Your task to perform on an android device: delete the emails in spam in the gmail app Image 0: 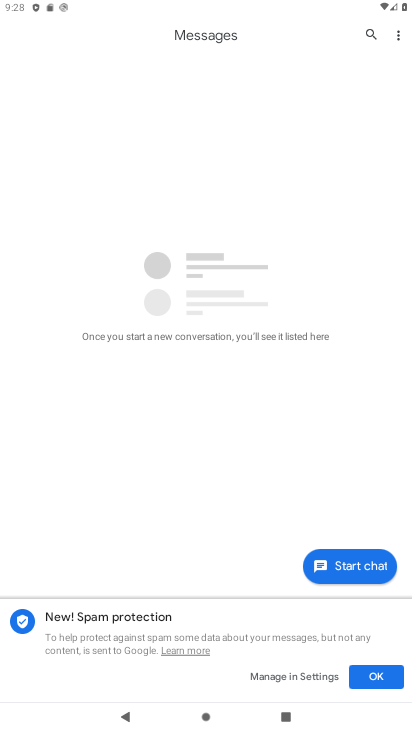
Step 0: press home button
Your task to perform on an android device: delete the emails in spam in the gmail app Image 1: 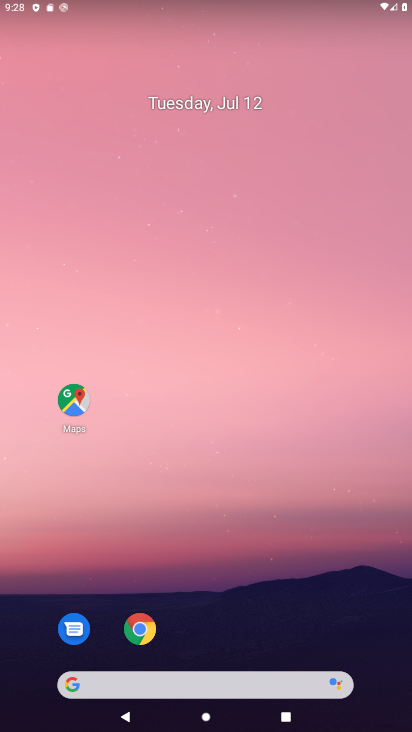
Step 1: drag from (237, 688) to (381, 93)
Your task to perform on an android device: delete the emails in spam in the gmail app Image 2: 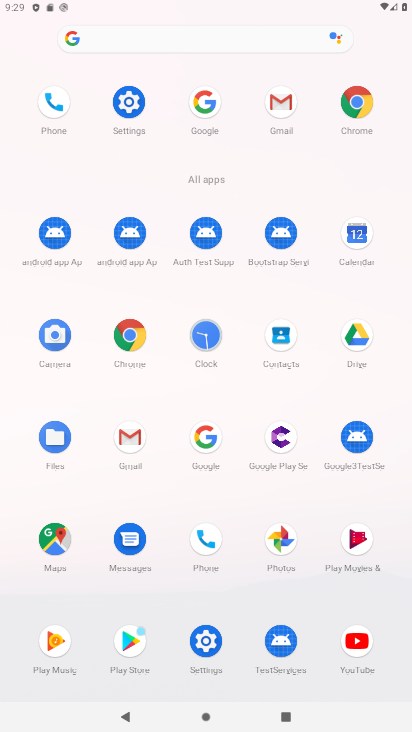
Step 2: click (127, 436)
Your task to perform on an android device: delete the emails in spam in the gmail app Image 3: 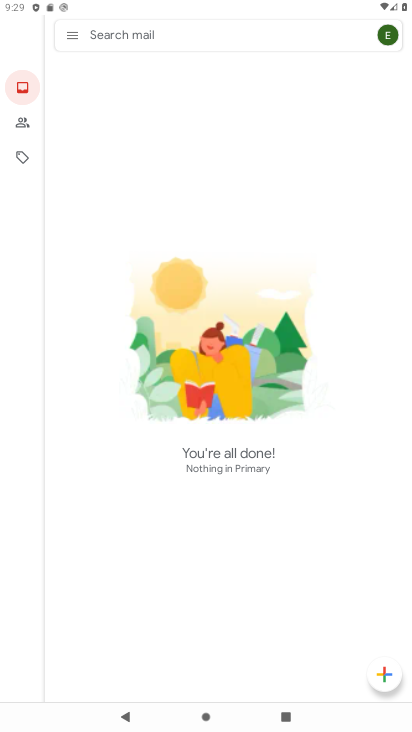
Step 3: click (69, 32)
Your task to perform on an android device: delete the emails in spam in the gmail app Image 4: 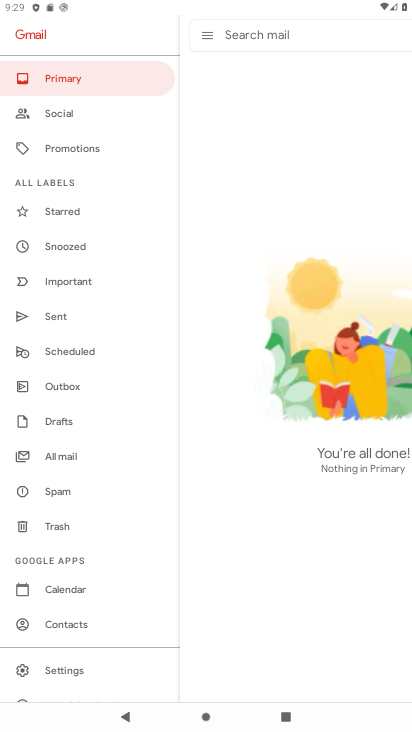
Step 4: click (73, 494)
Your task to perform on an android device: delete the emails in spam in the gmail app Image 5: 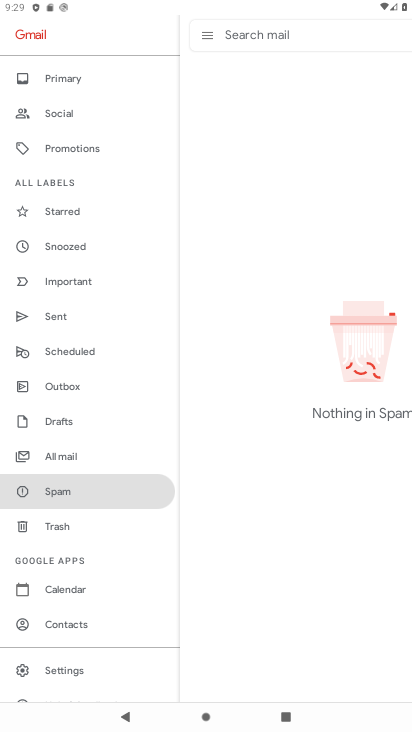
Step 5: task complete